Your task to perform on an android device: Open network settings Image 0: 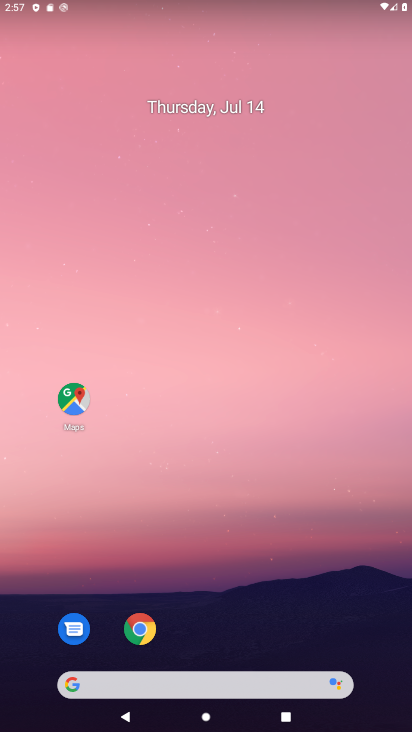
Step 0: click (264, 224)
Your task to perform on an android device: Open network settings Image 1: 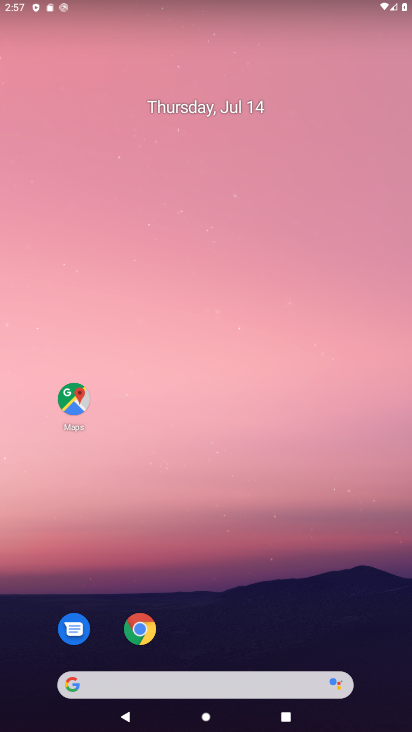
Step 1: drag from (273, 567) to (224, 266)
Your task to perform on an android device: Open network settings Image 2: 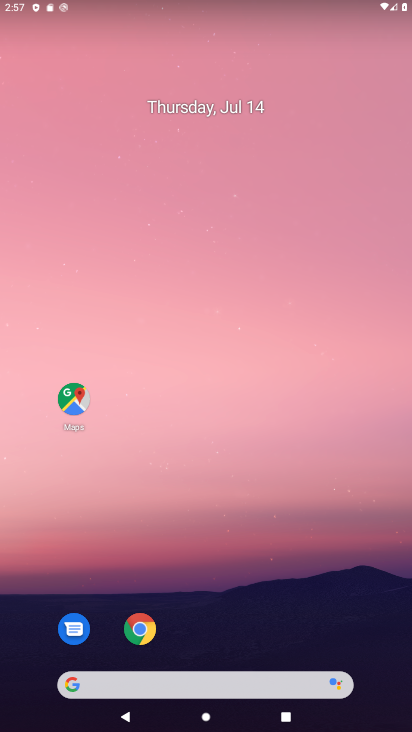
Step 2: drag from (332, 580) to (263, 140)
Your task to perform on an android device: Open network settings Image 3: 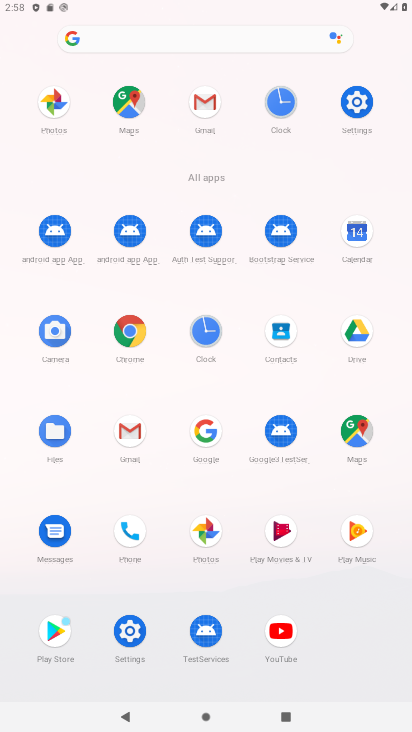
Step 3: click (355, 102)
Your task to perform on an android device: Open network settings Image 4: 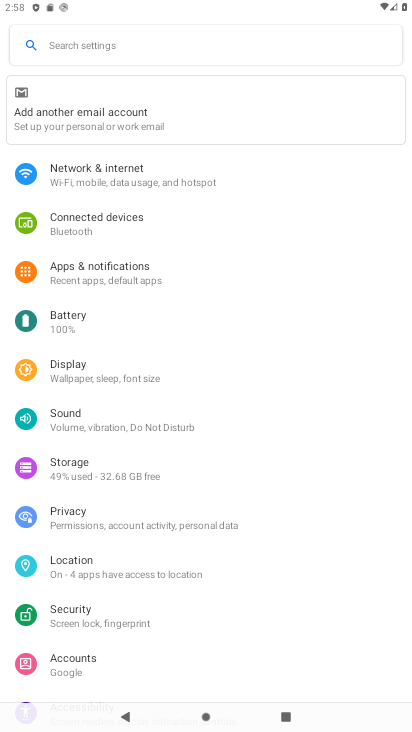
Step 4: click (59, 173)
Your task to perform on an android device: Open network settings Image 5: 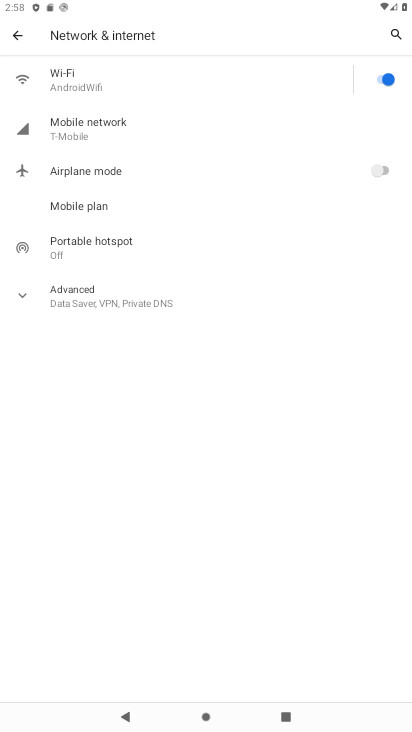
Step 5: task complete